Your task to perform on an android device: open app "Spotify: Music and Podcasts" (install if not already installed) and enter user name: "principled@inbox.com" and password: "arrests" Image 0: 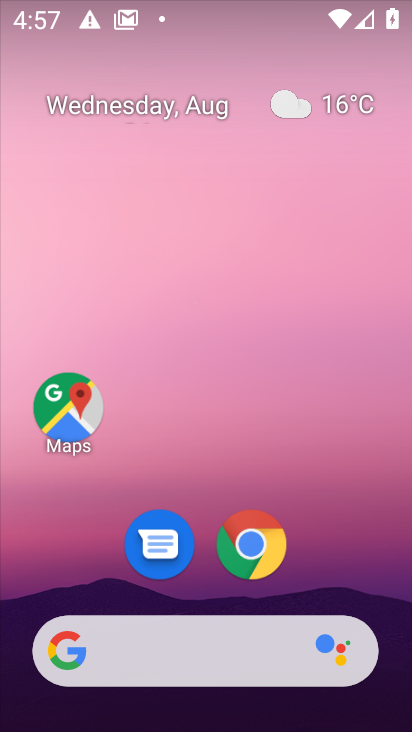
Step 0: drag from (157, 659) to (198, 81)
Your task to perform on an android device: open app "Spotify: Music and Podcasts" (install if not already installed) and enter user name: "principled@inbox.com" and password: "arrests" Image 1: 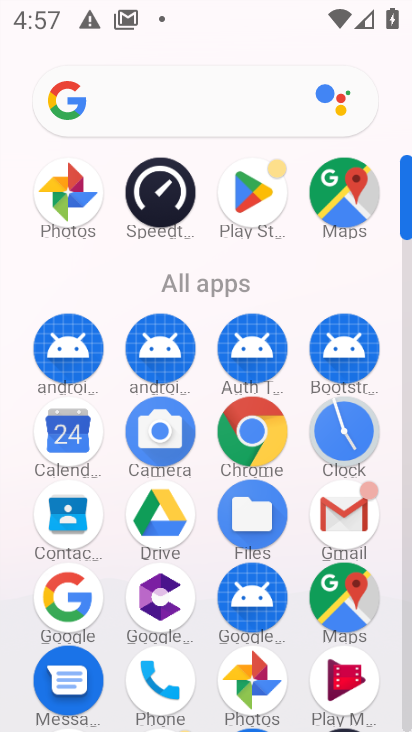
Step 1: click (254, 191)
Your task to perform on an android device: open app "Spotify: Music and Podcasts" (install if not already installed) and enter user name: "principled@inbox.com" and password: "arrests" Image 2: 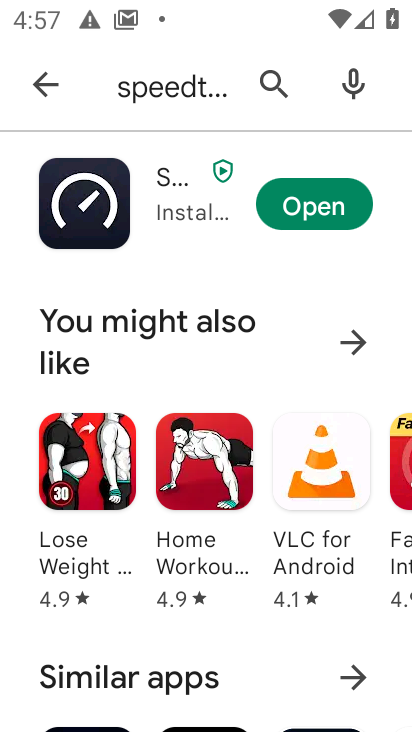
Step 2: press back button
Your task to perform on an android device: open app "Spotify: Music and Podcasts" (install if not already installed) and enter user name: "principled@inbox.com" and password: "arrests" Image 3: 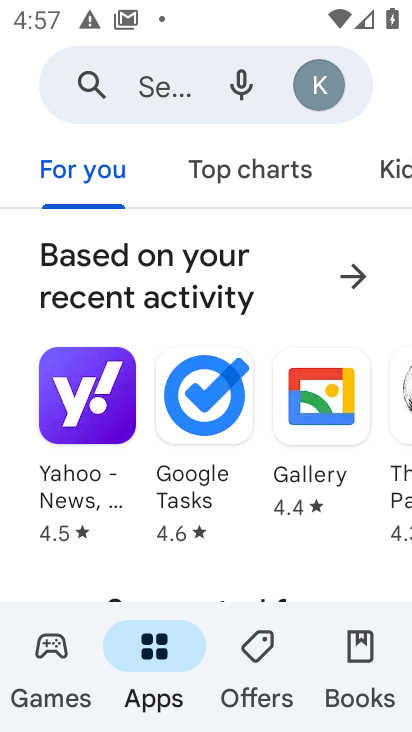
Step 3: click (167, 90)
Your task to perform on an android device: open app "Spotify: Music and Podcasts" (install if not already installed) and enter user name: "principled@inbox.com" and password: "arrests" Image 4: 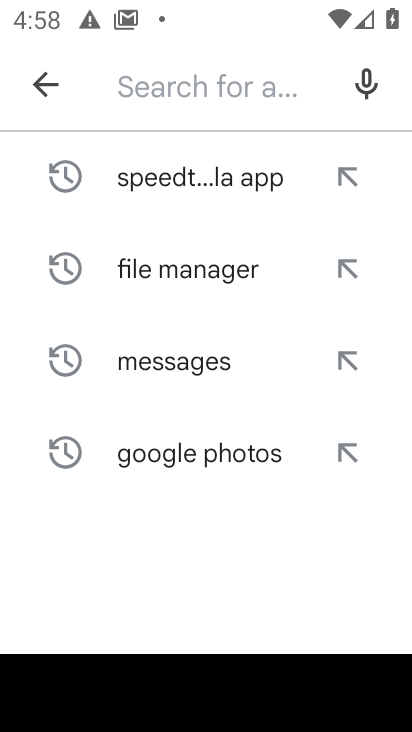
Step 4: type "Spotify: Music and Podcasts"
Your task to perform on an android device: open app "Spotify: Music and Podcasts" (install if not already installed) and enter user name: "principled@inbox.com" and password: "arrests" Image 5: 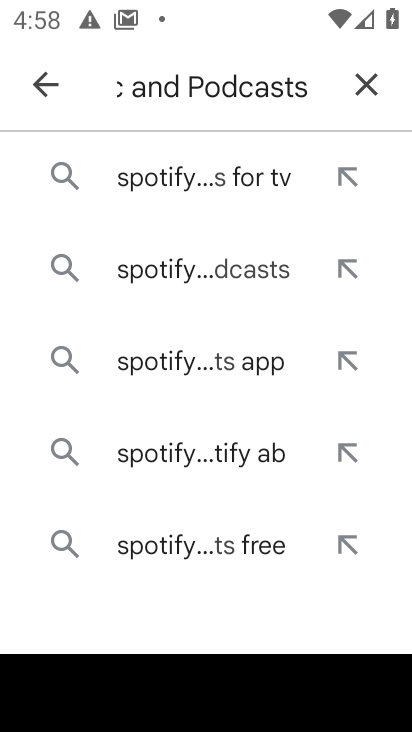
Step 5: click (164, 182)
Your task to perform on an android device: open app "Spotify: Music and Podcasts" (install if not already installed) and enter user name: "principled@inbox.com" and password: "arrests" Image 6: 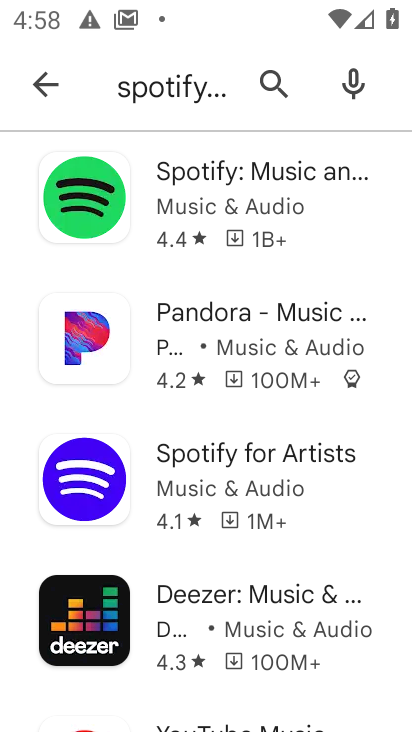
Step 6: click (209, 175)
Your task to perform on an android device: open app "Spotify: Music and Podcasts" (install if not already installed) and enter user name: "principled@inbox.com" and password: "arrests" Image 7: 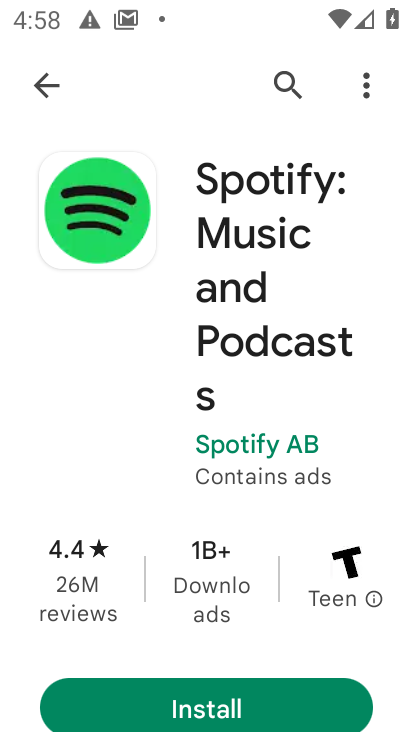
Step 7: click (216, 697)
Your task to perform on an android device: open app "Spotify: Music and Podcasts" (install if not already installed) and enter user name: "principled@inbox.com" and password: "arrests" Image 8: 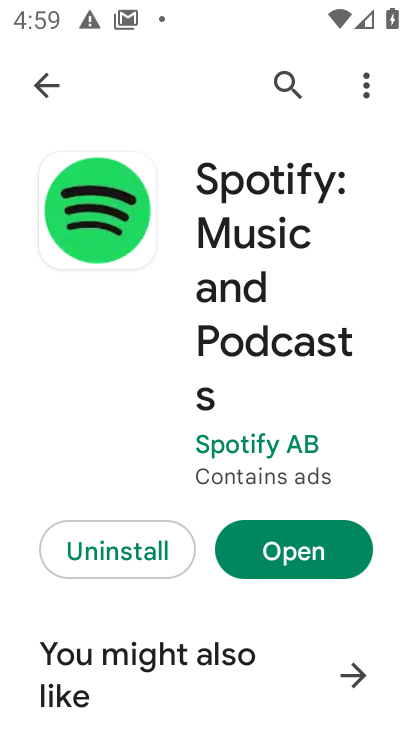
Step 8: click (289, 550)
Your task to perform on an android device: open app "Spotify: Music and Podcasts" (install if not already installed) and enter user name: "principled@inbox.com" and password: "arrests" Image 9: 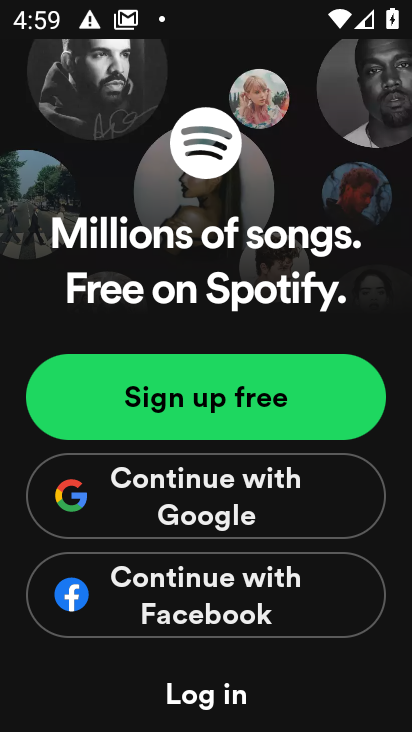
Step 9: click (205, 694)
Your task to perform on an android device: open app "Spotify: Music and Podcasts" (install if not already installed) and enter user name: "principled@inbox.com" and password: "arrests" Image 10: 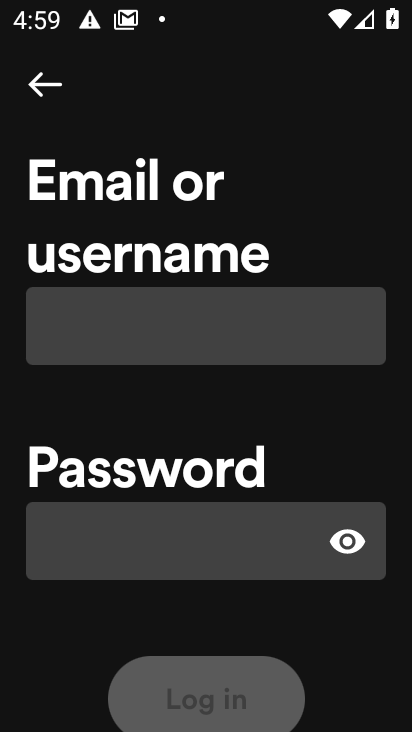
Step 10: click (232, 331)
Your task to perform on an android device: open app "Spotify: Music and Podcasts" (install if not already installed) and enter user name: "principled@inbox.com" and password: "arrests" Image 11: 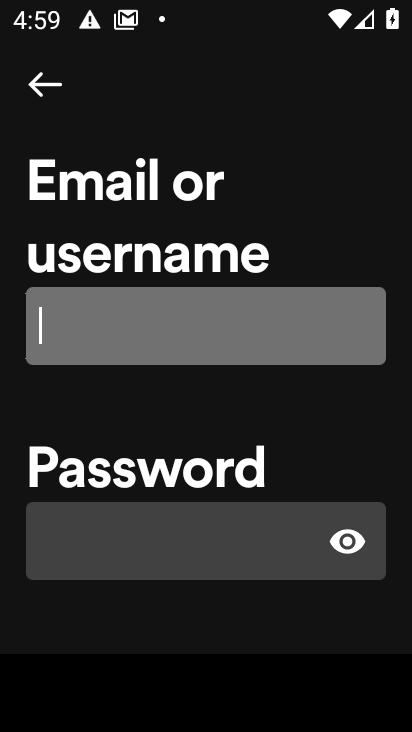
Step 11: click (139, 336)
Your task to perform on an android device: open app "Spotify: Music and Podcasts" (install if not already installed) and enter user name: "principled@inbox.com" and password: "arrests" Image 12: 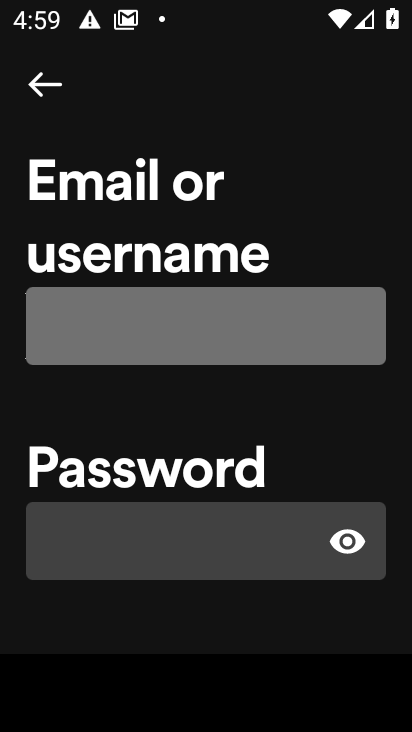
Step 12: type "principled@inbox.com"
Your task to perform on an android device: open app "Spotify: Music and Podcasts" (install if not already installed) and enter user name: "principled@inbox.com" and password: "arrests" Image 13: 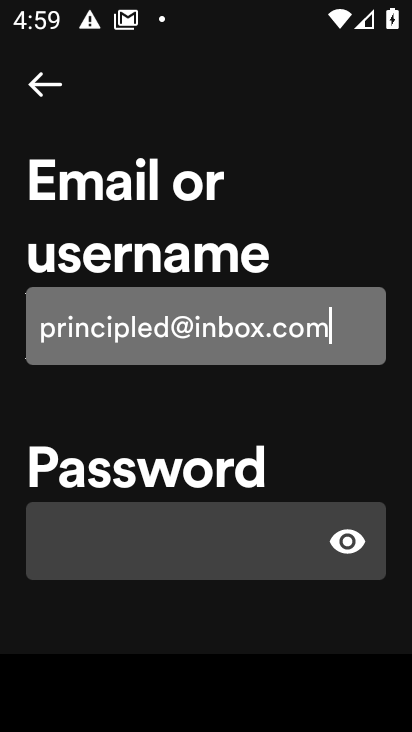
Step 13: type ""
Your task to perform on an android device: open app "Spotify: Music and Podcasts" (install if not already installed) and enter user name: "principled@inbox.com" and password: "arrests" Image 14: 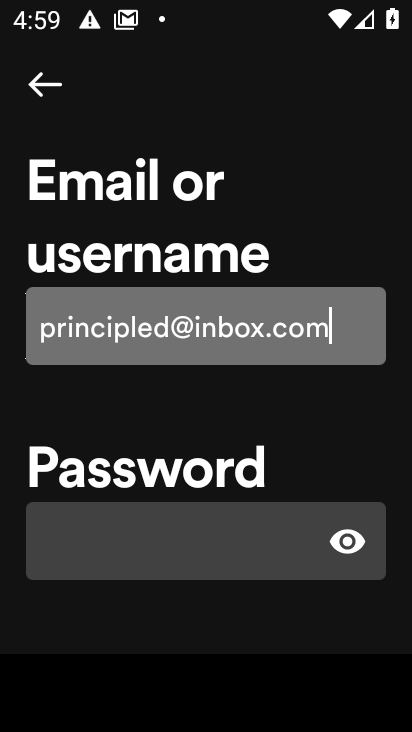
Step 14: click (115, 544)
Your task to perform on an android device: open app "Spotify: Music and Podcasts" (install if not already installed) and enter user name: "principled@inbox.com" and password: "arrests" Image 15: 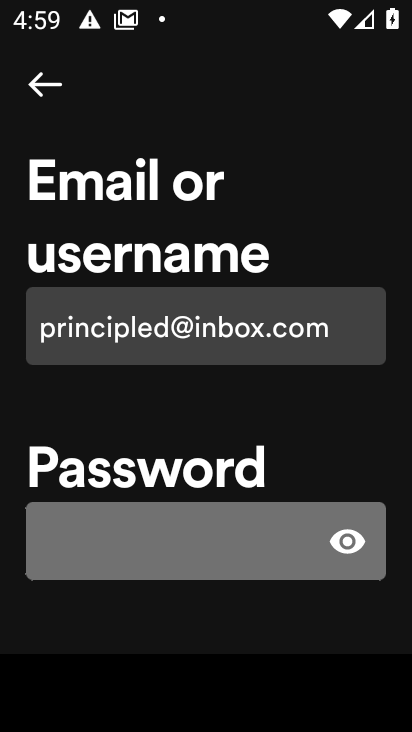
Step 15: type "arrests"
Your task to perform on an android device: open app "Spotify: Music and Podcasts" (install if not already installed) and enter user name: "principled@inbox.com" and password: "arrests" Image 16: 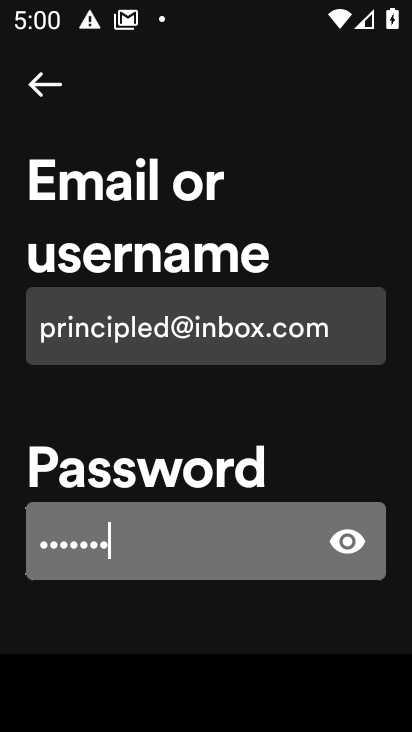
Step 16: task complete